Your task to perform on an android device: Go to calendar. Show me events next week Image 0: 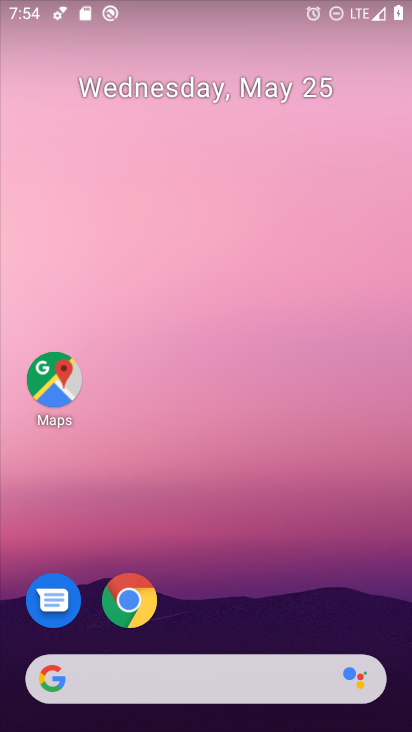
Step 0: drag from (289, 592) to (237, 124)
Your task to perform on an android device: Go to calendar. Show me events next week Image 1: 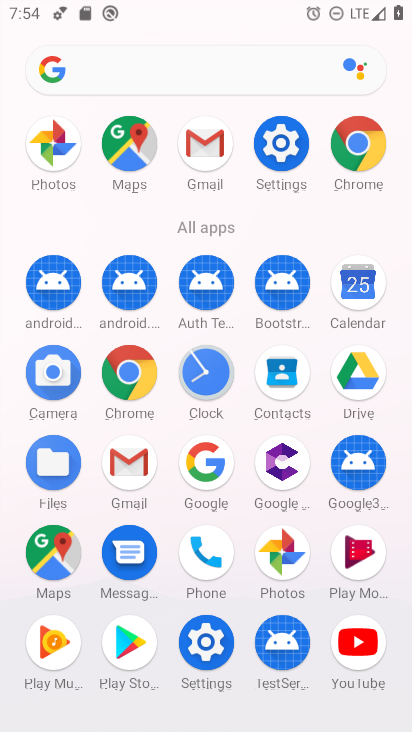
Step 1: click (361, 279)
Your task to perform on an android device: Go to calendar. Show me events next week Image 2: 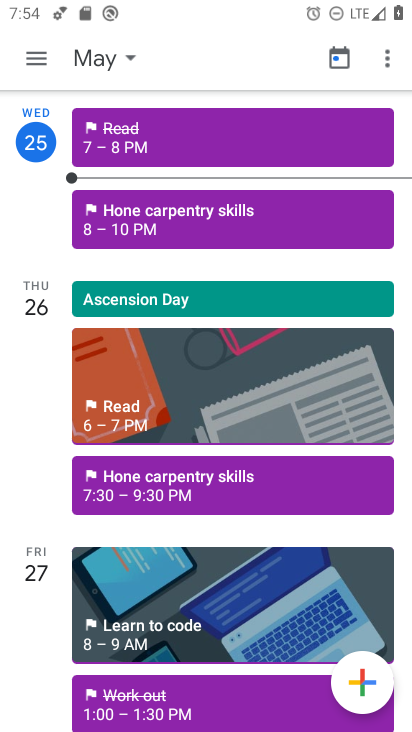
Step 2: click (75, 50)
Your task to perform on an android device: Go to calendar. Show me events next week Image 3: 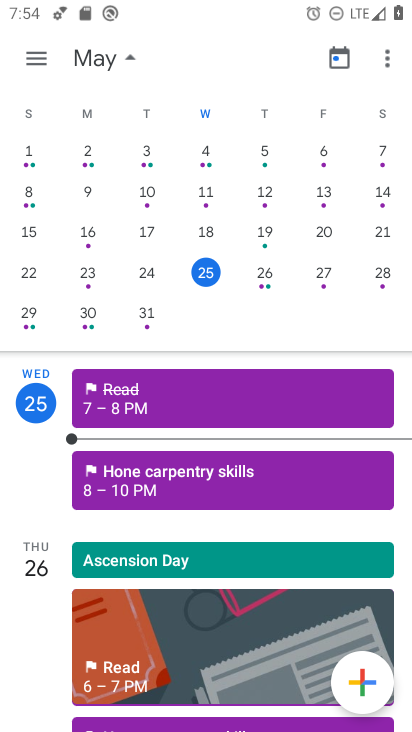
Step 3: click (37, 312)
Your task to perform on an android device: Go to calendar. Show me events next week Image 4: 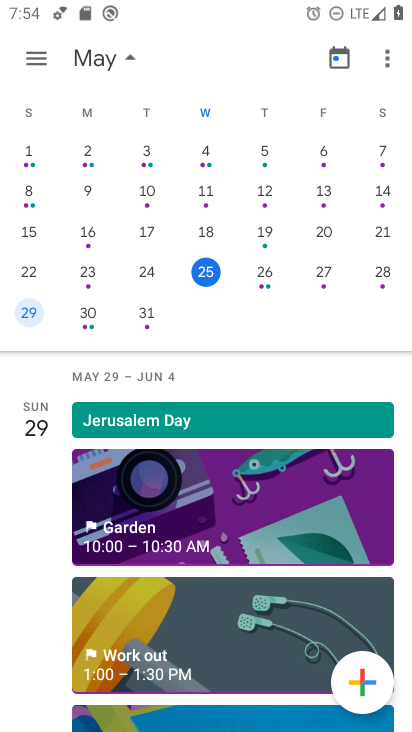
Step 4: click (94, 66)
Your task to perform on an android device: Go to calendar. Show me events next week Image 5: 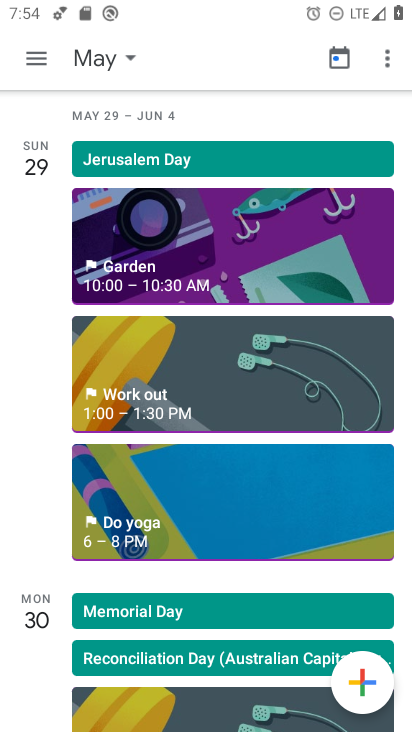
Step 5: click (91, 60)
Your task to perform on an android device: Go to calendar. Show me events next week Image 6: 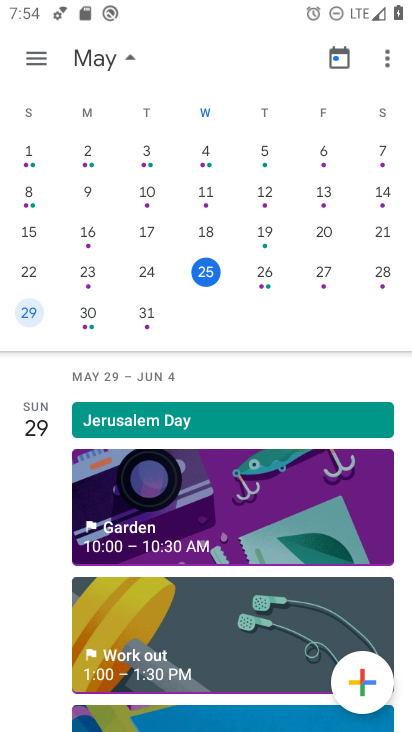
Step 6: click (21, 326)
Your task to perform on an android device: Go to calendar. Show me events next week Image 7: 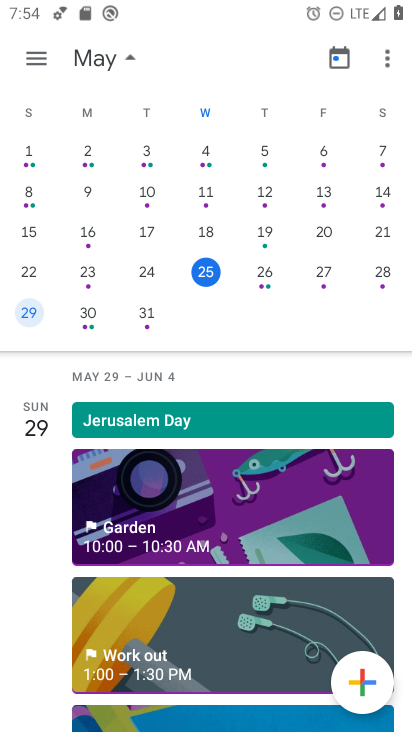
Step 7: click (24, 52)
Your task to perform on an android device: Go to calendar. Show me events next week Image 8: 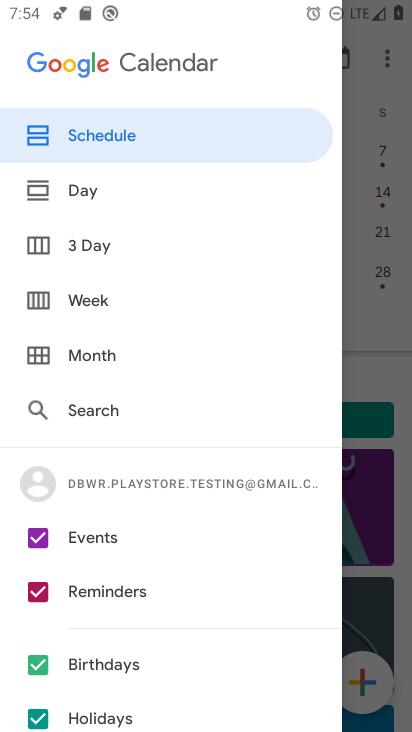
Step 8: click (103, 297)
Your task to perform on an android device: Go to calendar. Show me events next week Image 9: 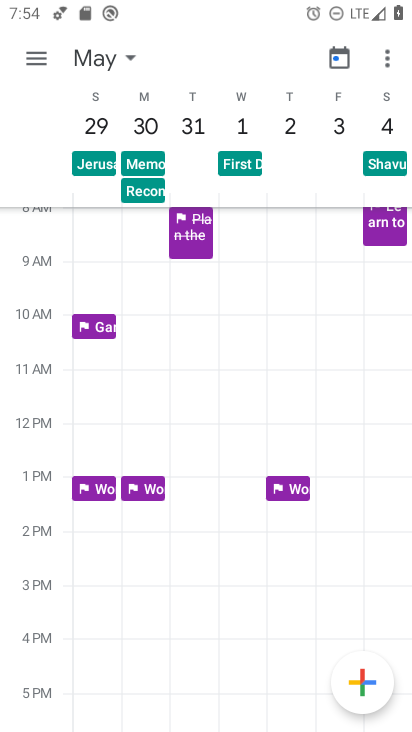
Step 9: task complete